Your task to perform on an android device: Search for vegetarian restaurants on Maps Image 0: 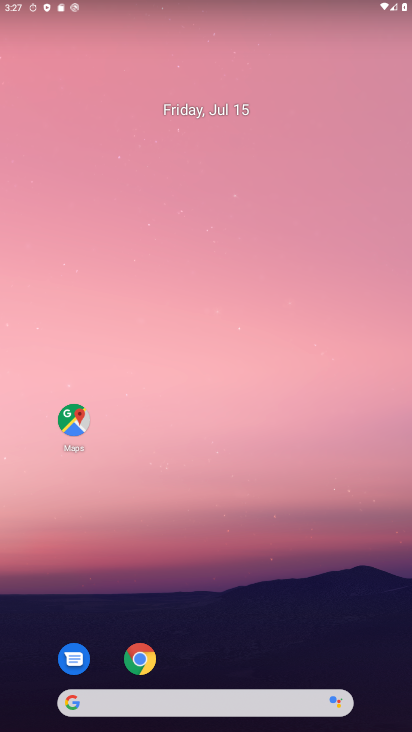
Step 0: click (66, 421)
Your task to perform on an android device: Search for vegetarian restaurants on Maps Image 1: 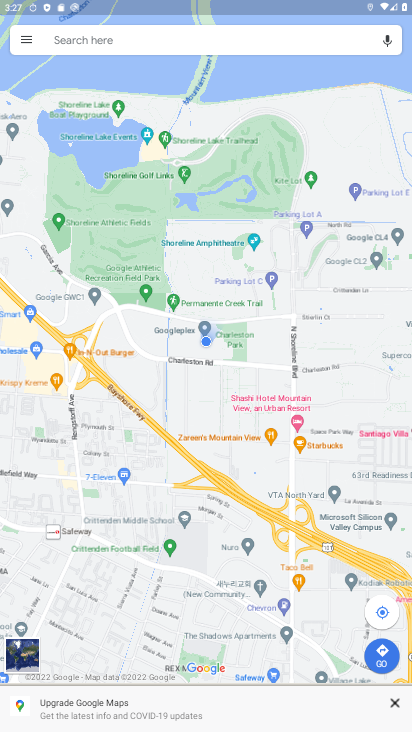
Step 1: click (162, 40)
Your task to perform on an android device: Search for vegetarian restaurants on Maps Image 2: 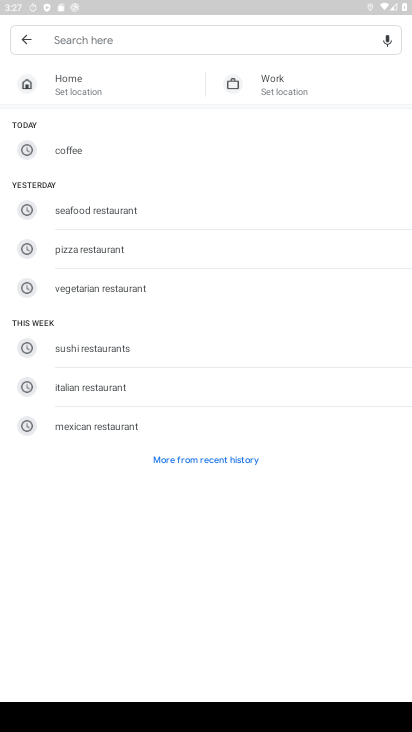
Step 2: type "vegetarian restaurants"
Your task to perform on an android device: Search for vegetarian restaurants on Maps Image 3: 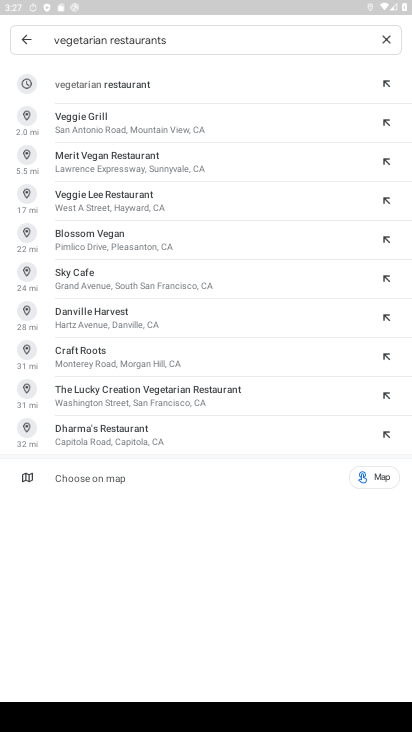
Step 3: click (172, 84)
Your task to perform on an android device: Search for vegetarian restaurants on Maps Image 4: 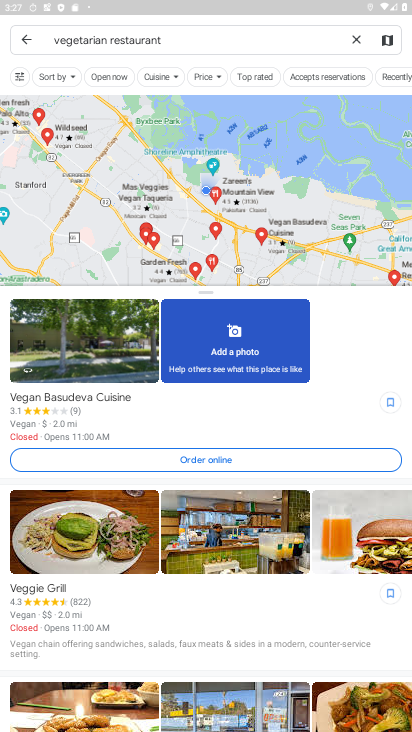
Step 4: task complete